Your task to perform on an android device: find photos in the google photos app Image 0: 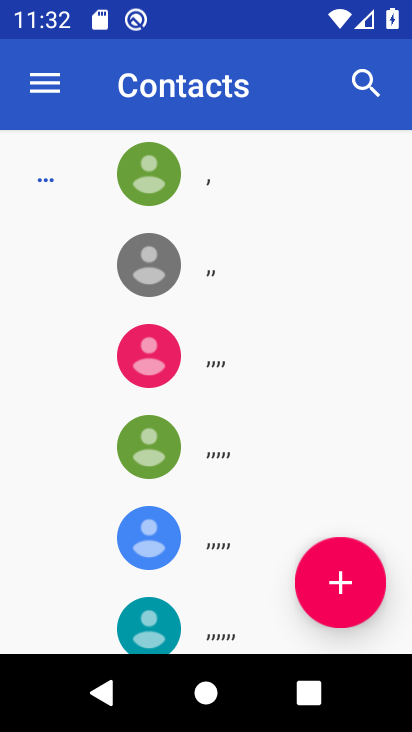
Step 0: press home button
Your task to perform on an android device: find photos in the google photos app Image 1: 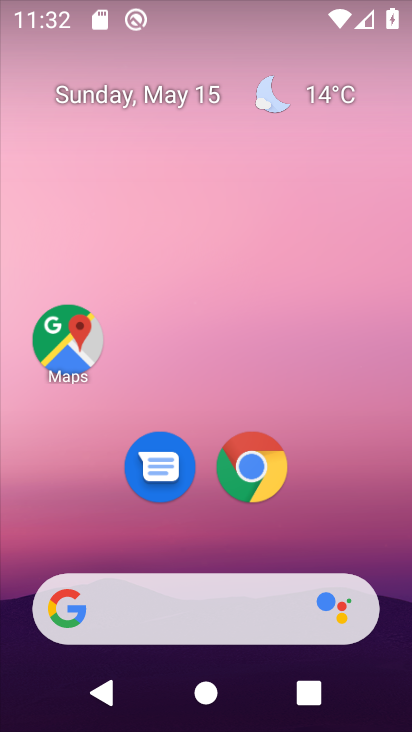
Step 1: drag from (202, 540) to (196, 7)
Your task to perform on an android device: find photos in the google photos app Image 2: 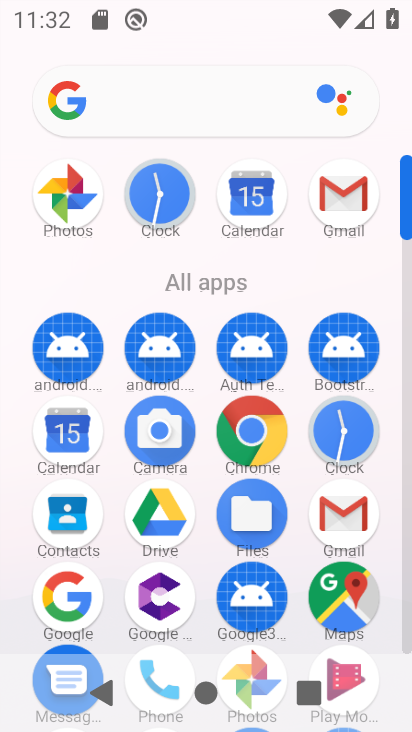
Step 2: click (69, 185)
Your task to perform on an android device: find photos in the google photos app Image 3: 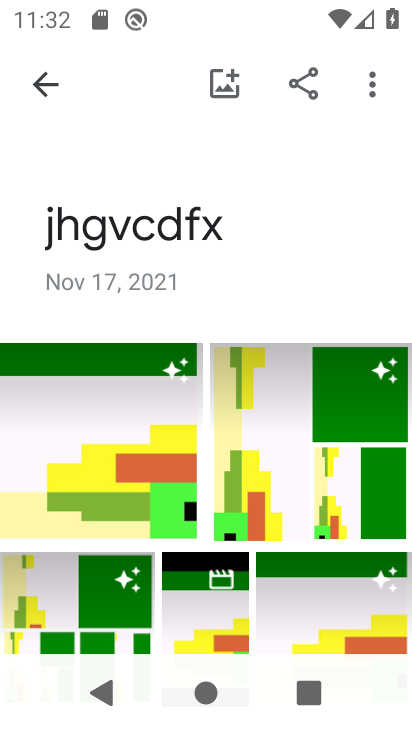
Step 3: click (45, 78)
Your task to perform on an android device: find photos in the google photos app Image 4: 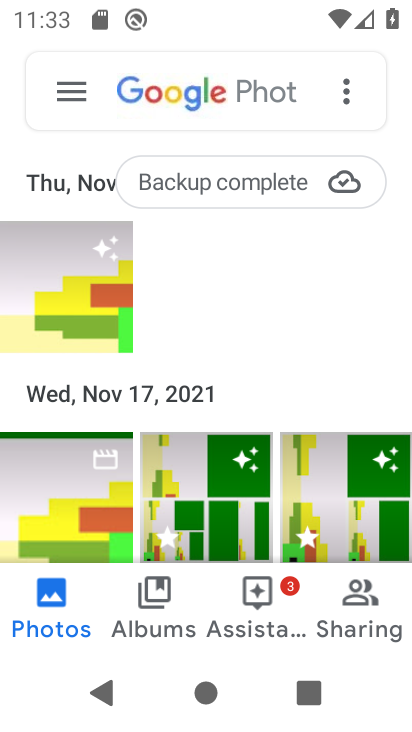
Step 4: task complete